Your task to perform on an android device: Open the calendar app, open the side menu, and click the "Day" option Image 0: 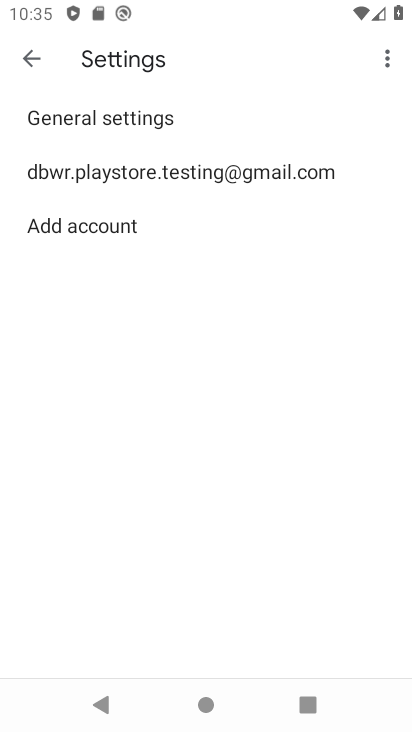
Step 0: press home button
Your task to perform on an android device: Open the calendar app, open the side menu, and click the "Day" option Image 1: 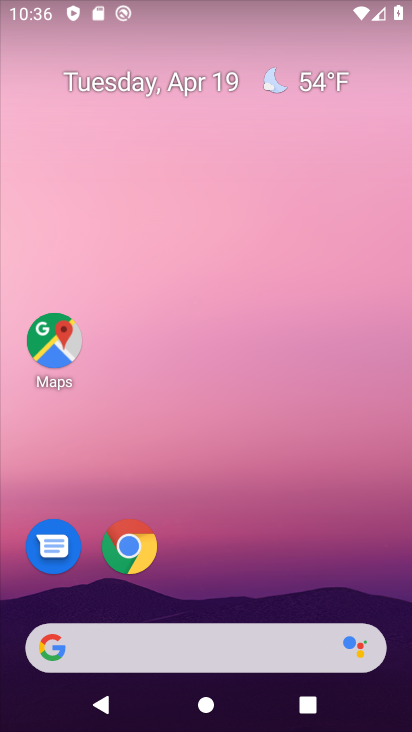
Step 1: drag from (216, 461) to (221, 76)
Your task to perform on an android device: Open the calendar app, open the side menu, and click the "Day" option Image 2: 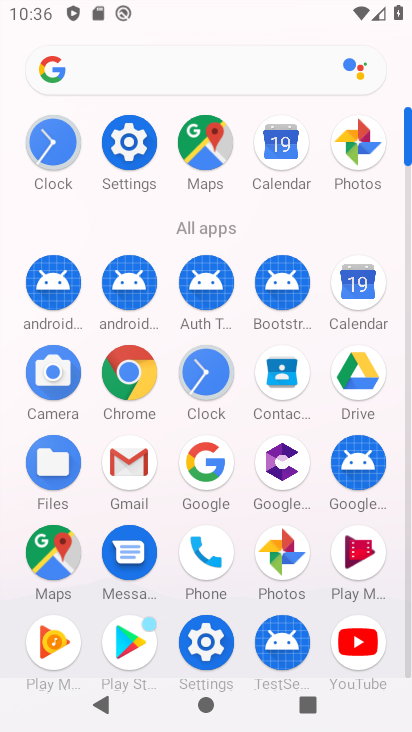
Step 2: click (347, 285)
Your task to perform on an android device: Open the calendar app, open the side menu, and click the "Day" option Image 3: 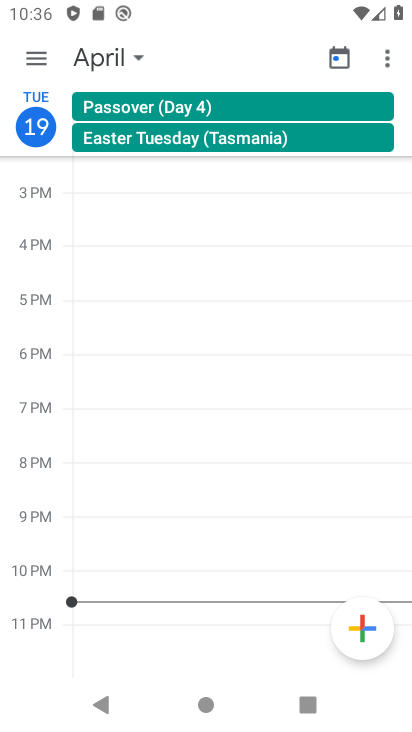
Step 3: click (40, 63)
Your task to perform on an android device: Open the calendar app, open the side menu, and click the "Day" option Image 4: 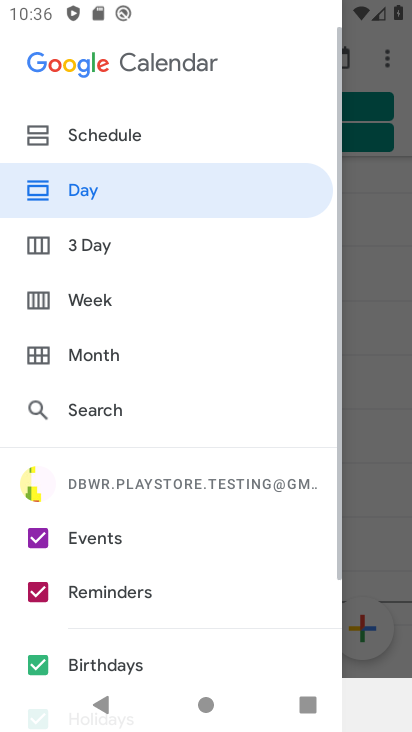
Step 4: click (129, 203)
Your task to perform on an android device: Open the calendar app, open the side menu, and click the "Day" option Image 5: 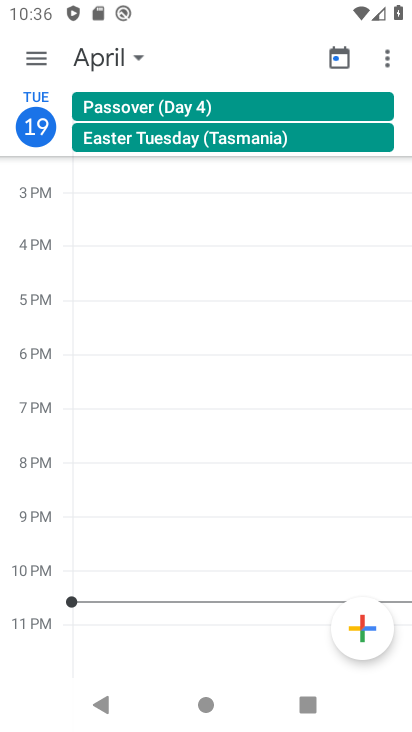
Step 5: task complete